Your task to perform on an android device: Open calendar and show me the third week of next month Image 0: 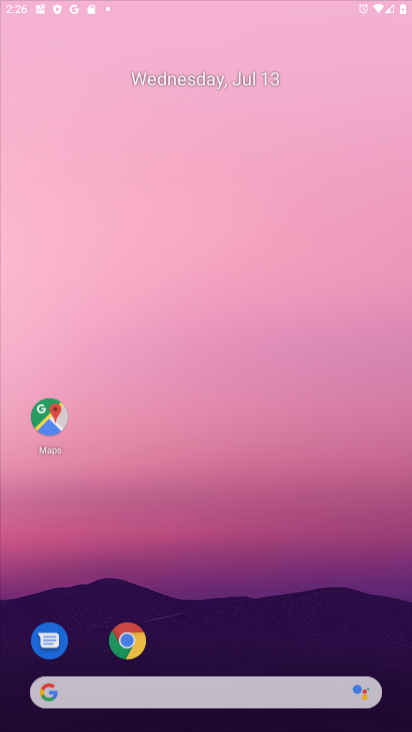
Step 0: click (162, 147)
Your task to perform on an android device: Open calendar and show me the third week of next month Image 1: 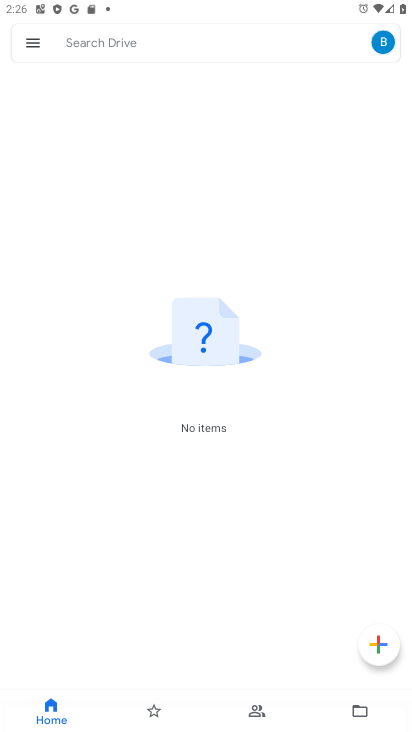
Step 1: press home button
Your task to perform on an android device: Open calendar and show me the third week of next month Image 2: 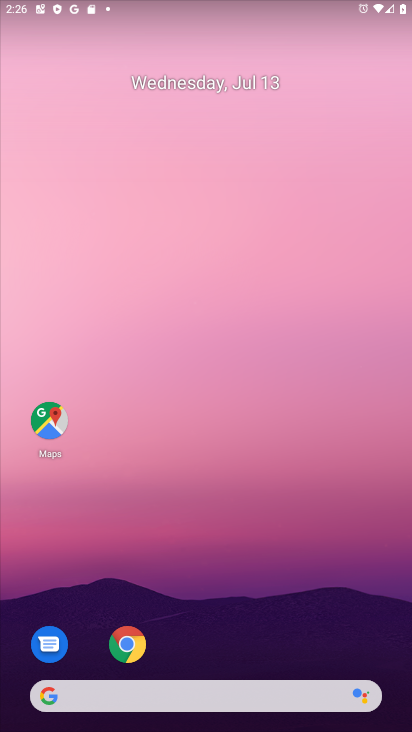
Step 2: drag from (179, 661) to (98, 112)
Your task to perform on an android device: Open calendar and show me the third week of next month Image 3: 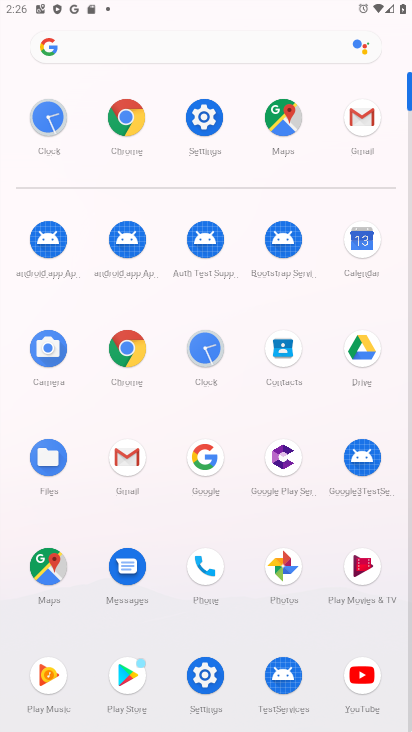
Step 3: click (375, 233)
Your task to perform on an android device: Open calendar and show me the third week of next month Image 4: 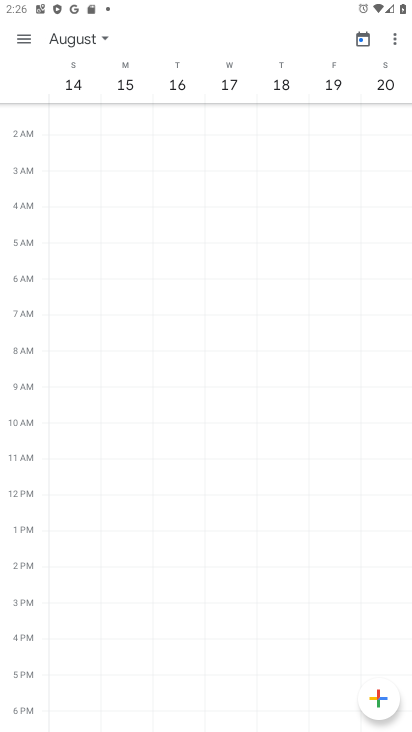
Step 4: task complete